Your task to perform on an android device: move a message to another label in the gmail app Image 0: 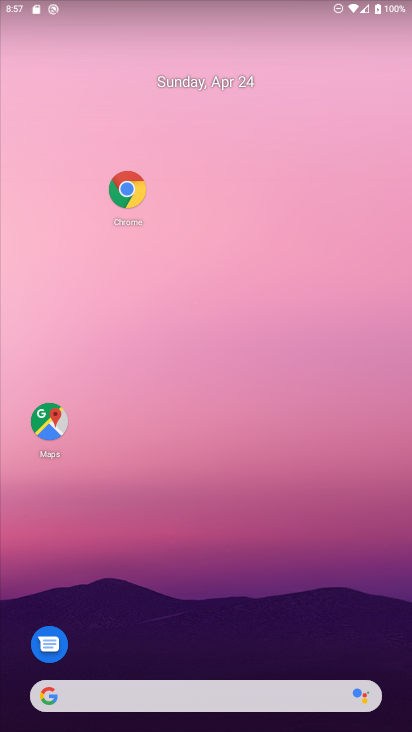
Step 0: click (324, 727)
Your task to perform on an android device: move a message to another label in the gmail app Image 1: 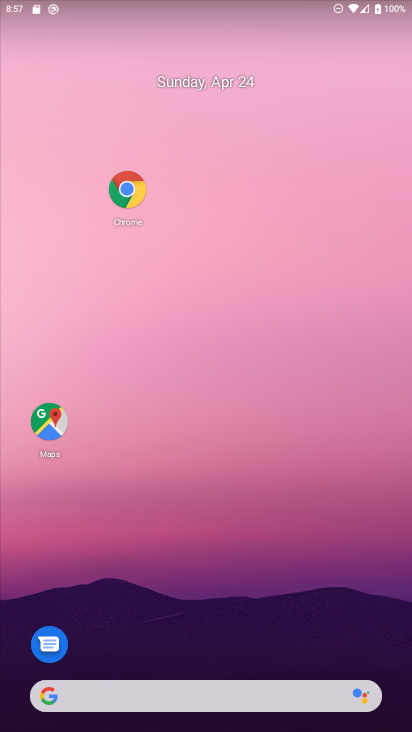
Step 1: drag from (231, 492) to (296, 8)
Your task to perform on an android device: move a message to another label in the gmail app Image 2: 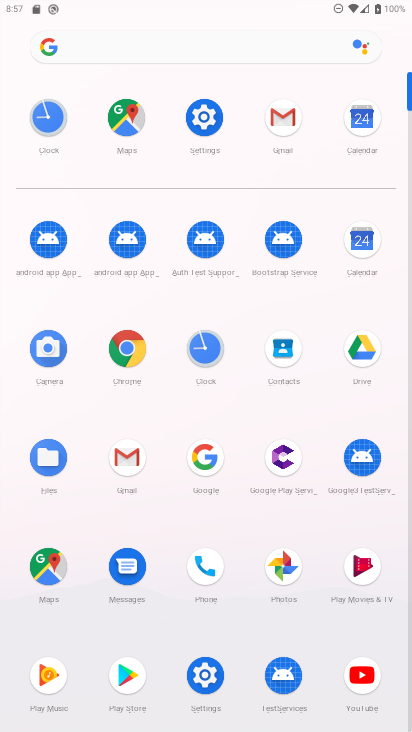
Step 2: click (120, 447)
Your task to perform on an android device: move a message to another label in the gmail app Image 3: 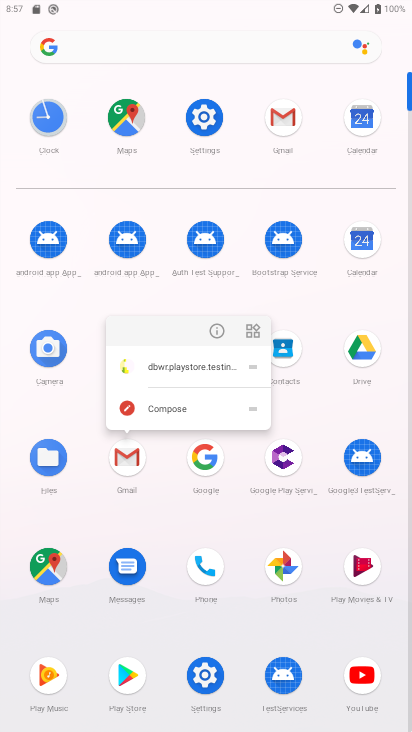
Step 3: click (223, 331)
Your task to perform on an android device: move a message to another label in the gmail app Image 4: 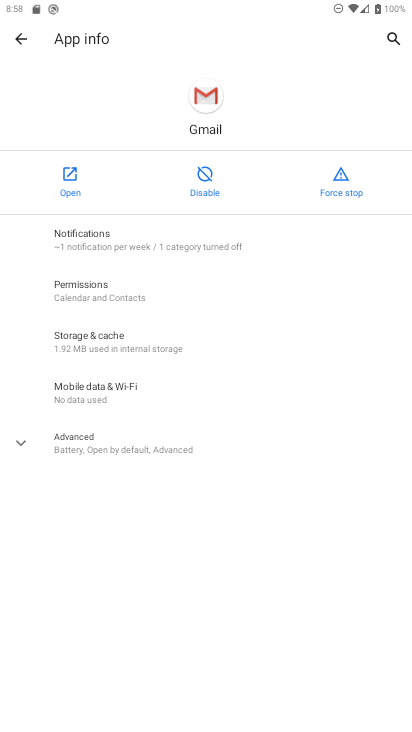
Step 4: click (70, 184)
Your task to perform on an android device: move a message to another label in the gmail app Image 5: 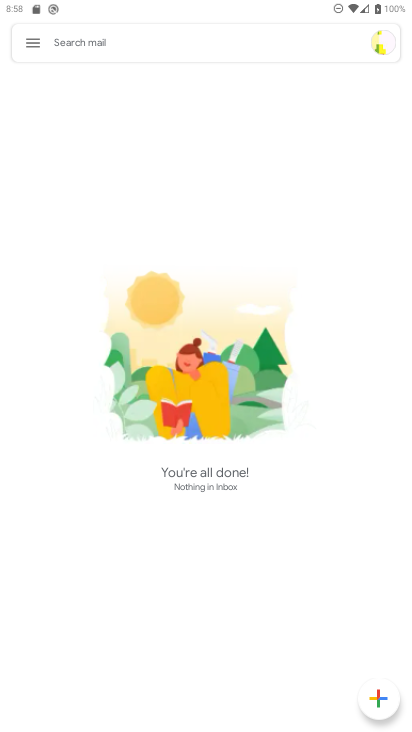
Step 5: click (29, 50)
Your task to perform on an android device: move a message to another label in the gmail app Image 6: 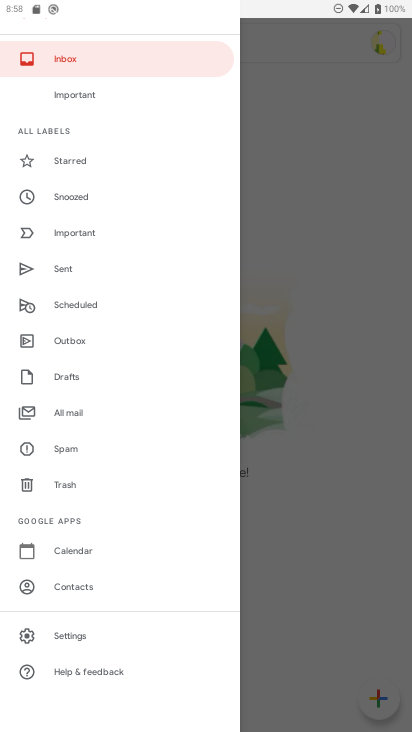
Step 6: drag from (78, 185) to (127, 641)
Your task to perform on an android device: move a message to another label in the gmail app Image 7: 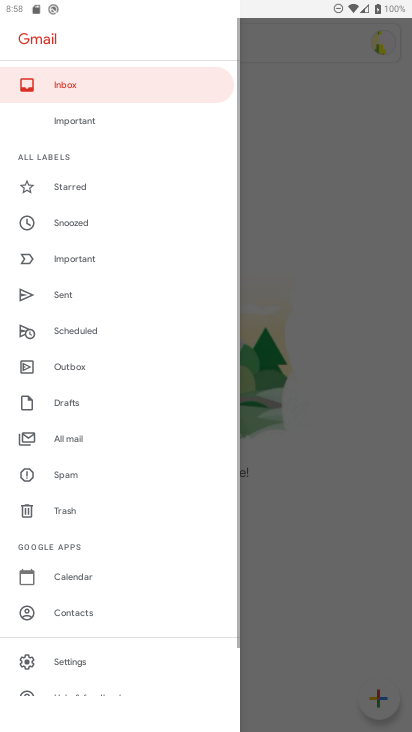
Step 7: click (90, 86)
Your task to perform on an android device: move a message to another label in the gmail app Image 8: 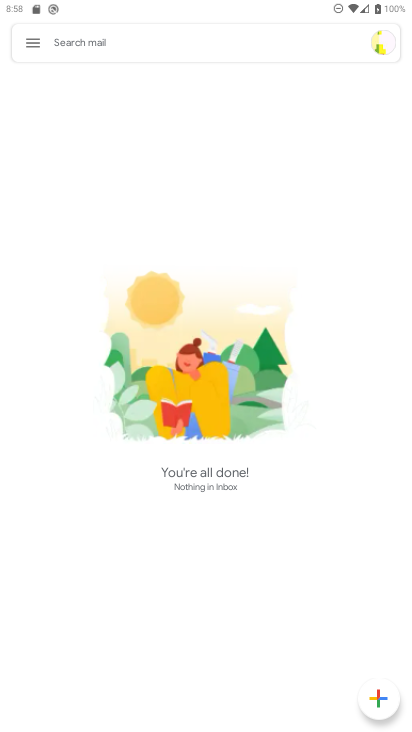
Step 8: task complete